Your task to perform on an android device: Go to wifi settings Image 0: 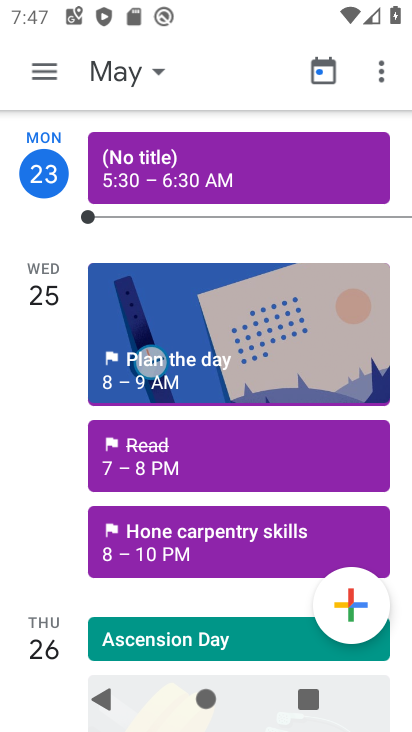
Step 0: press home button
Your task to perform on an android device: Go to wifi settings Image 1: 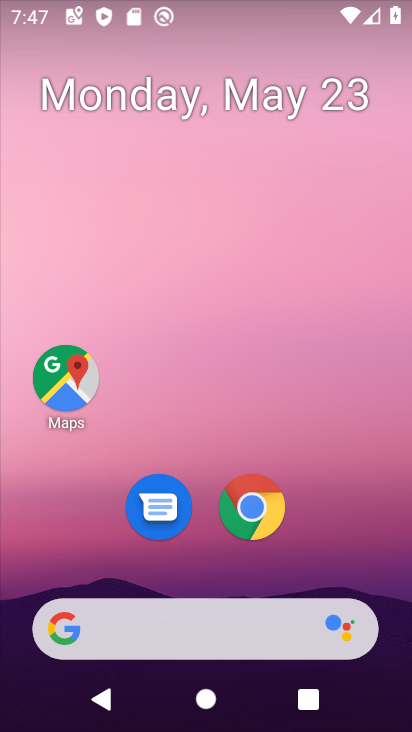
Step 1: drag from (381, 547) to (342, 102)
Your task to perform on an android device: Go to wifi settings Image 2: 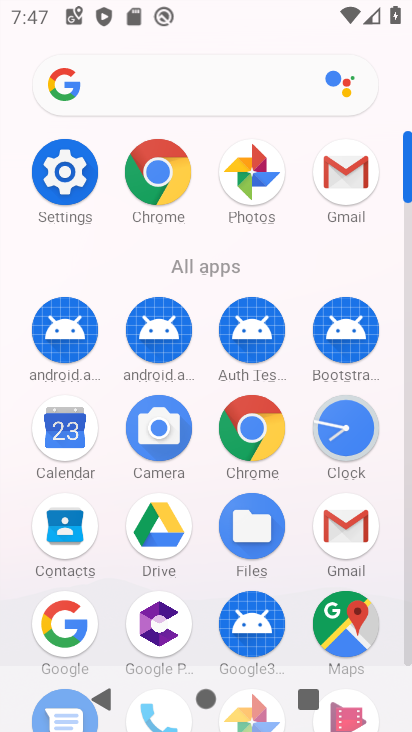
Step 2: click (65, 185)
Your task to perform on an android device: Go to wifi settings Image 3: 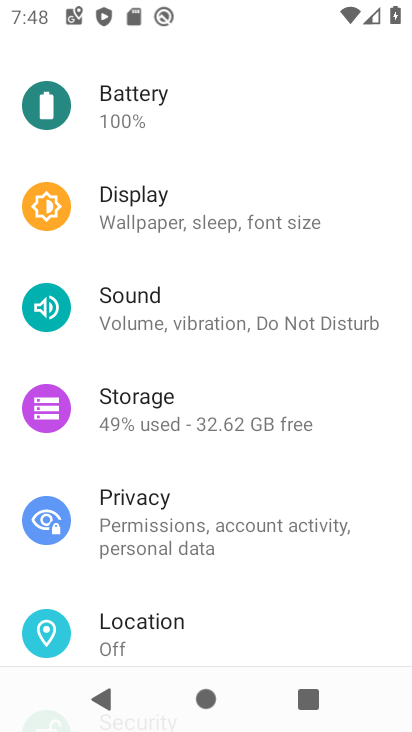
Step 3: drag from (164, 138) to (227, 509)
Your task to perform on an android device: Go to wifi settings Image 4: 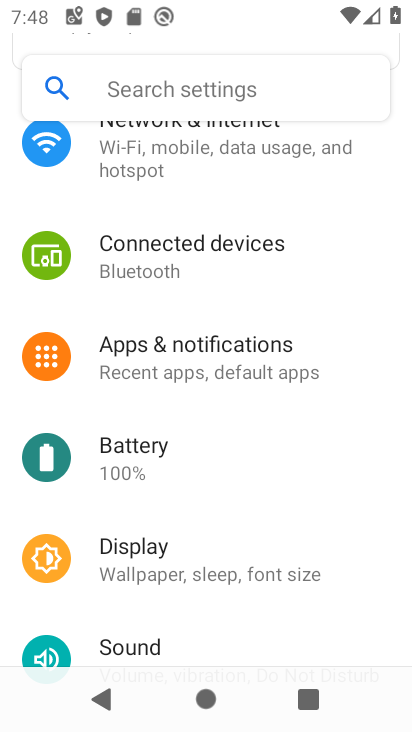
Step 4: drag from (220, 205) to (241, 497)
Your task to perform on an android device: Go to wifi settings Image 5: 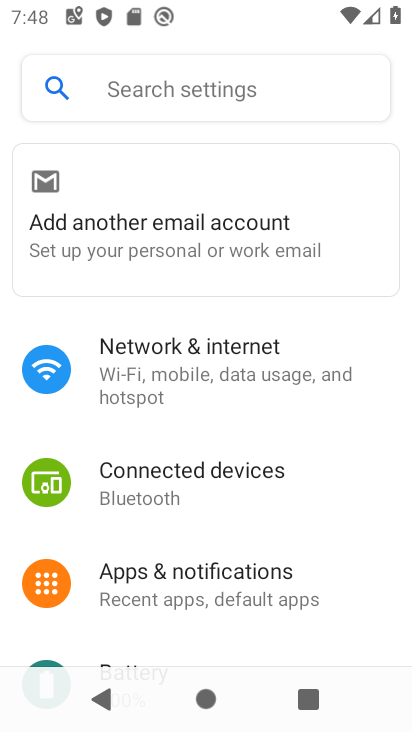
Step 5: click (237, 359)
Your task to perform on an android device: Go to wifi settings Image 6: 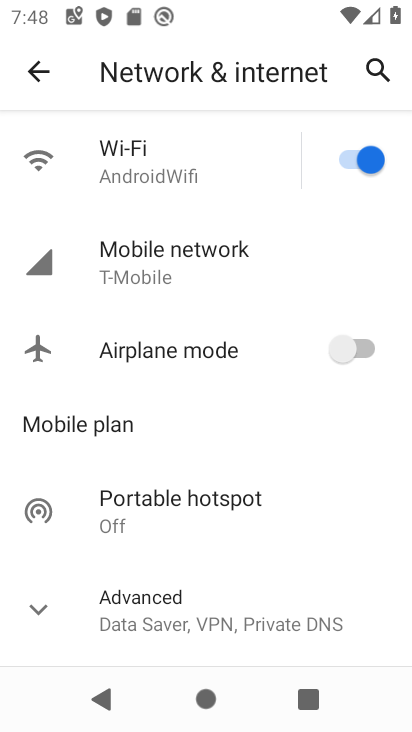
Step 6: click (174, 170)
Your task to perform on an android device: Go to wifi settings Image 7: 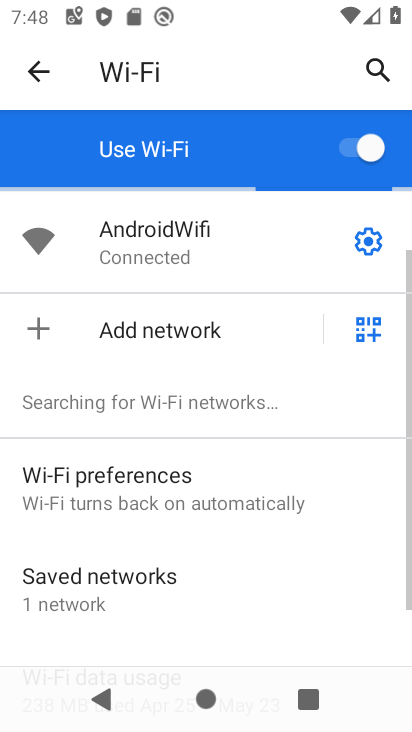
Step 7: click (364, 248)
Your task to perform on an android device: Go to wifi settings Image 8: 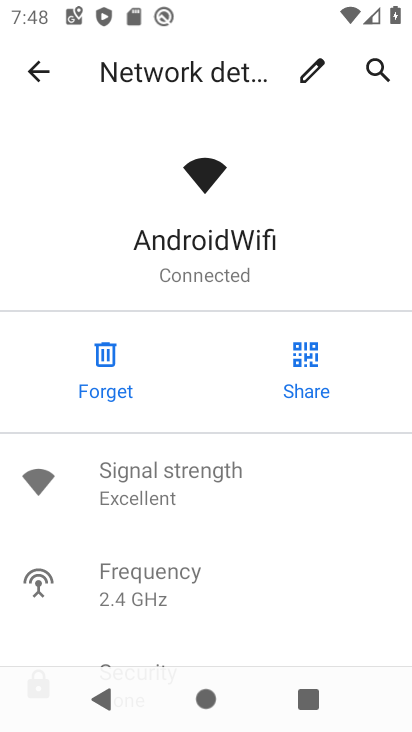
Step 8: task complete